Your task to perform on an android device: Open display settings Image 0: 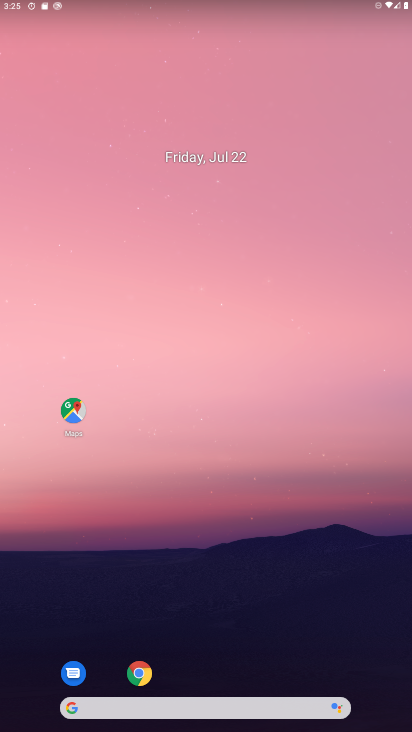
Step 0: click (248, 67)
Your task to perform on an android device: Open display settings Image 1: 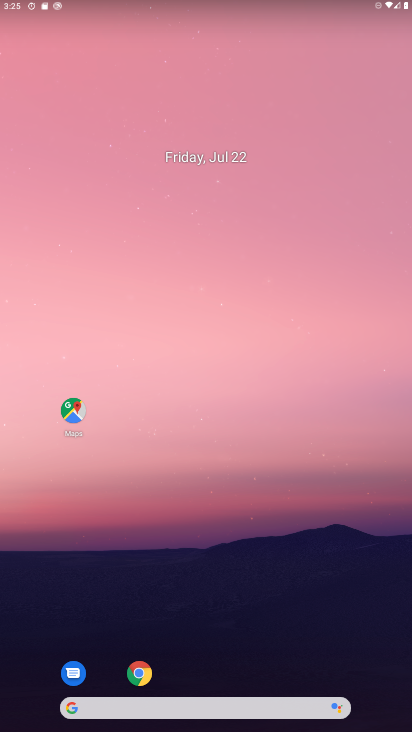
Step 1: drag from (183, 670) to (250, 223)
Your task to perform on an android device: Open display settings Image 2: 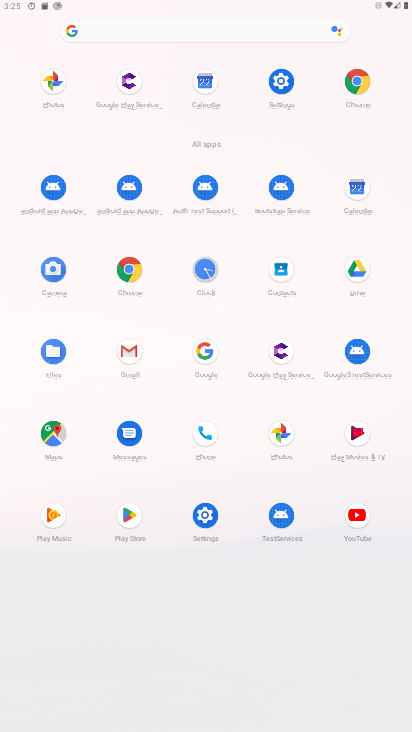
Step 2: click (196, 515)
Your task to perform on an android device: Open display settings Image 3: 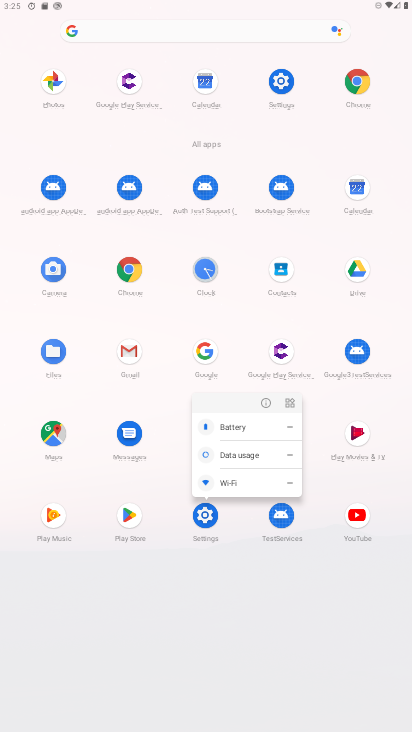
Step 3: click (263, 402)
Your task to perform on an android device: Open display settings Image 4: 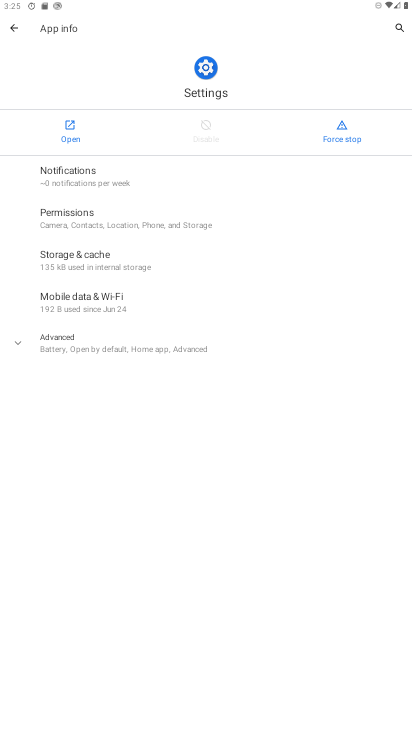
Step 4: click (67, 131)
Your task to perform on an android device: Open display settings Image 5: 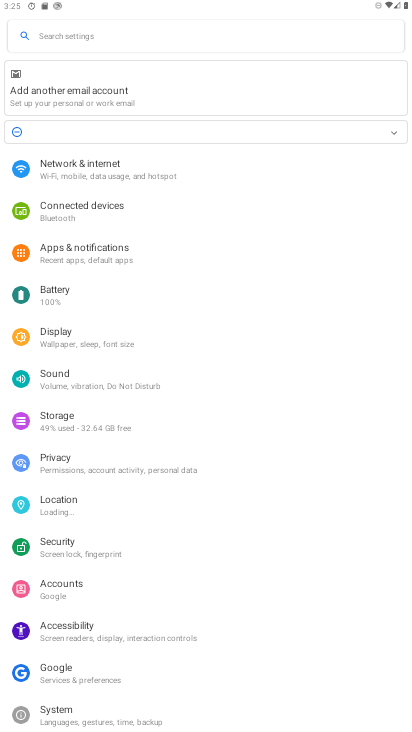
Step 5: click (82, 341)
Your task to perform on an android device: Open display settings Image 6: 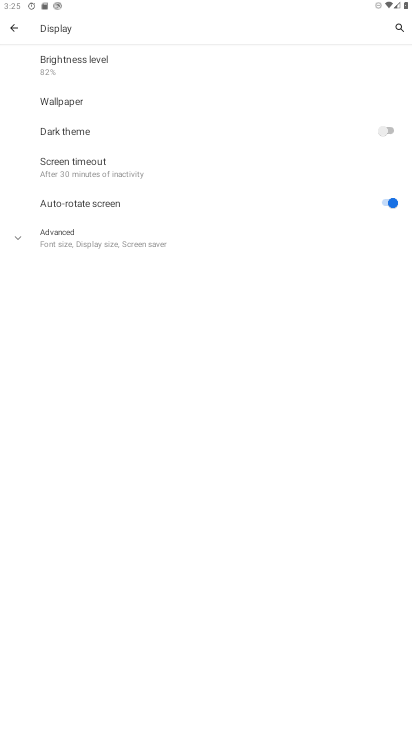
Step 6: drag from (266, 618) to (258, 348)
Your task to perform on an android device: Open display settings Image 7: 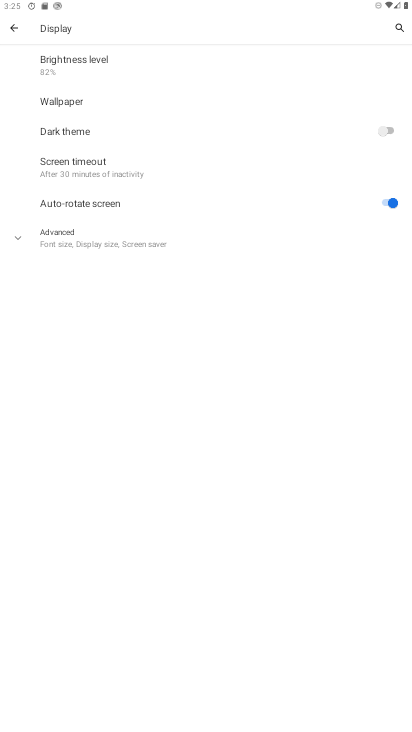
Step 7: click (82, 245)
Your task to perform on an android device: Open display settings Image 8: 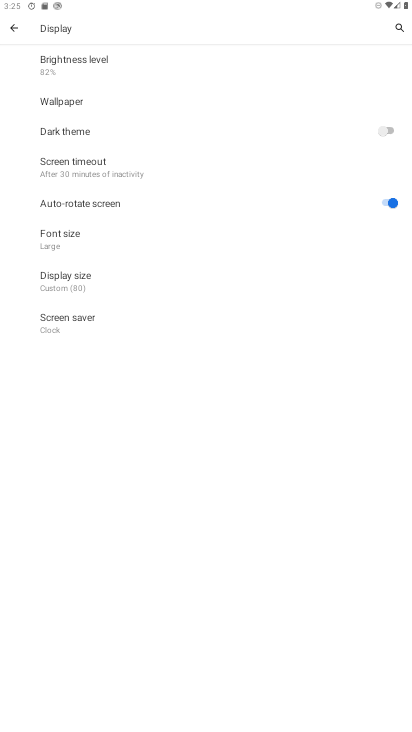
Step 8: task complete